Your task to perform on an android device: What's on my calendar today? Image 0: 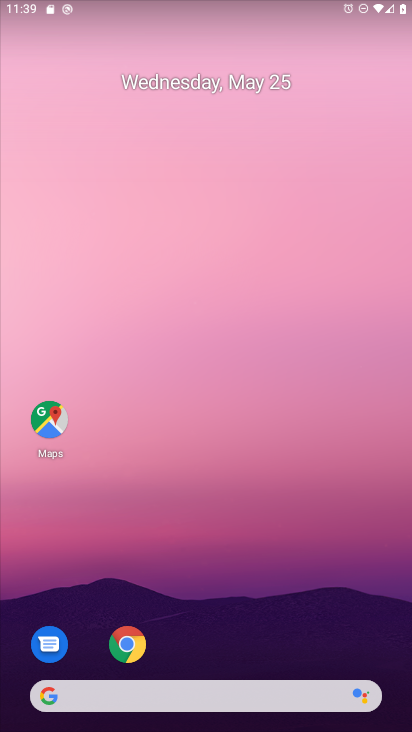
Step 0: press home button
Your task to perform on an android device: What's on my calendar today? Image 1: 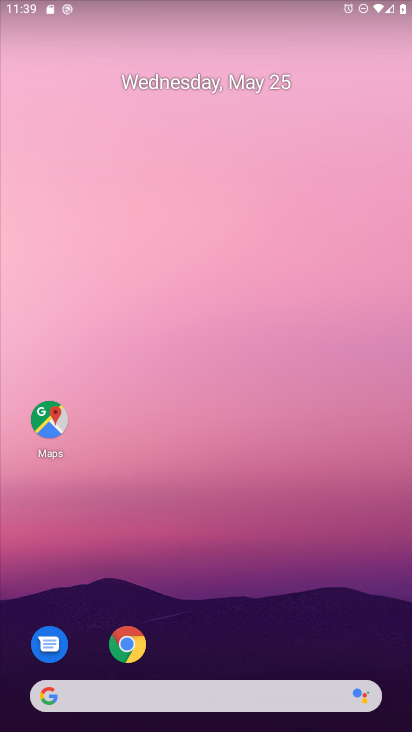
Step 1: drag from (202, 663) to (232, 58)
Your task to perform on an android device: What's on my calendar today? Image 2: 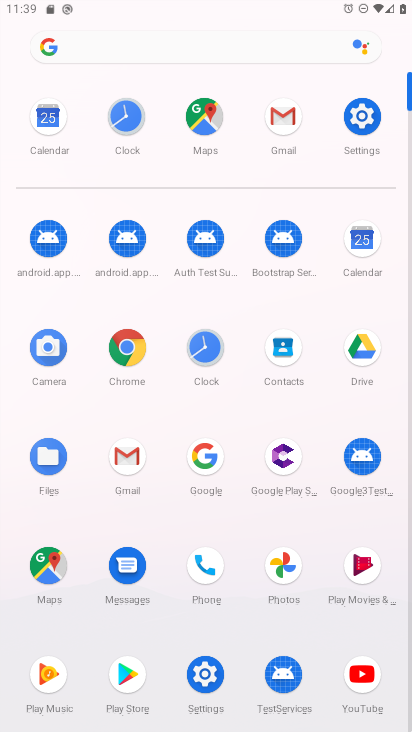
Step 2: click (363, 235)
Your task to perform on an android device: What's on my calendar today? Image 3: 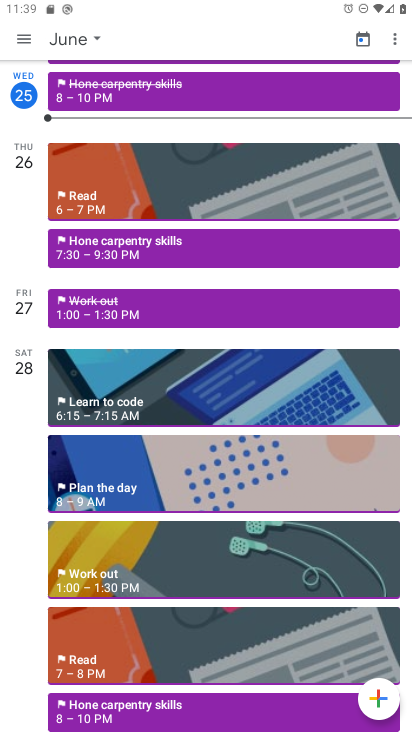
Step 3: drag from (28, 629) to (73, 690)
Your task to perform on an android device: What's on my calendar today? Image 4: 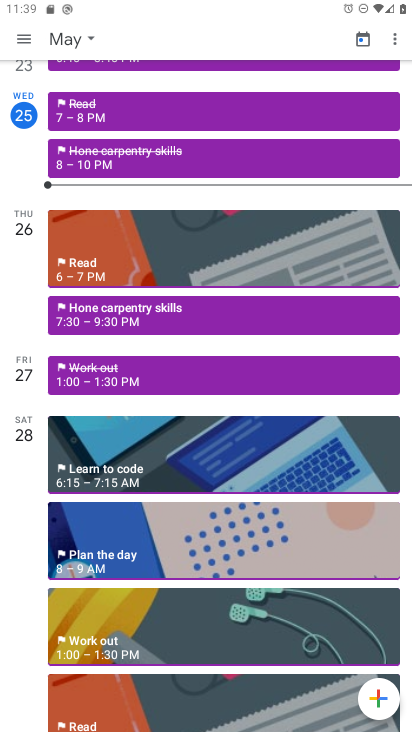
Step 4: click (32, 131)
Your task to perform on an android device: What's on my calendar today? Image 5: 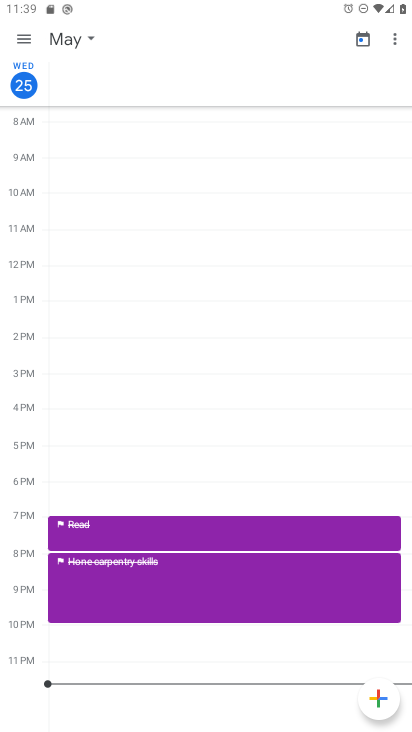
Step 5: task complete